Your task to perform on an android device: snooze an email in the gmail app Image 0: 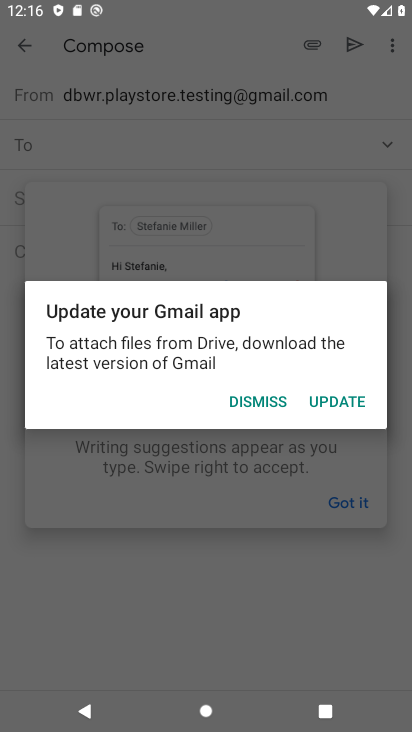
Step 0: press home button
Your task to perform on an android device: snooze an email in the gmail app Image 1: 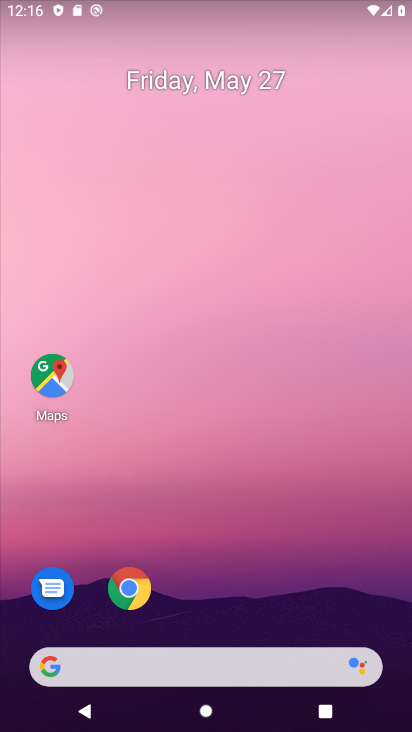
Step 1: drag from (282, 484) to (262, 1)
Your task to perform on an android device: snooze an email in the gmail app Image 2: 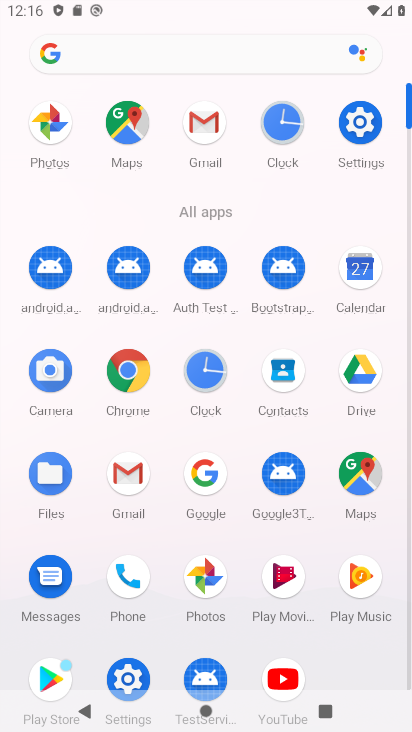
Step 2: click (193, 109)
Your task to perform on an android device: snooze an email in the gmail app Image 3: 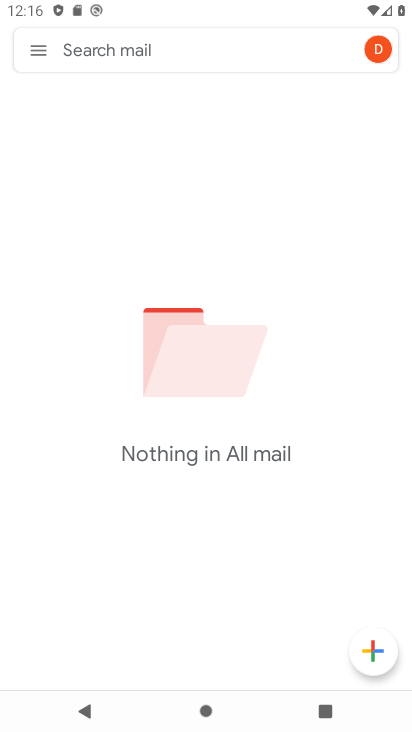
Step 3: click (41, 51)
Your task to perform on an android device: snooze an email in the gmail app Image 4: 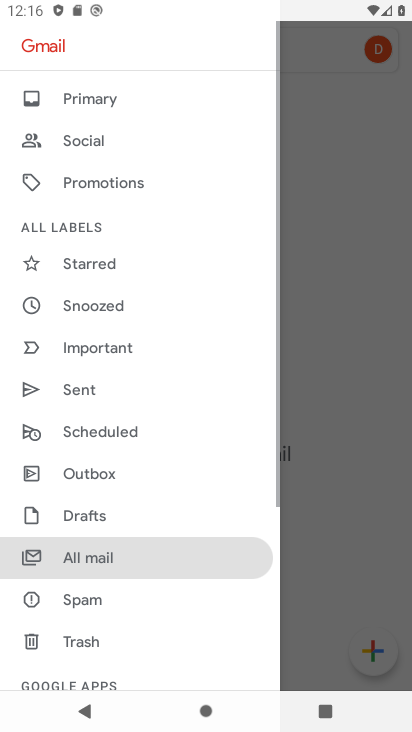
Step 4: task complete